Your task to perform on an android device: add a contact Image 0: 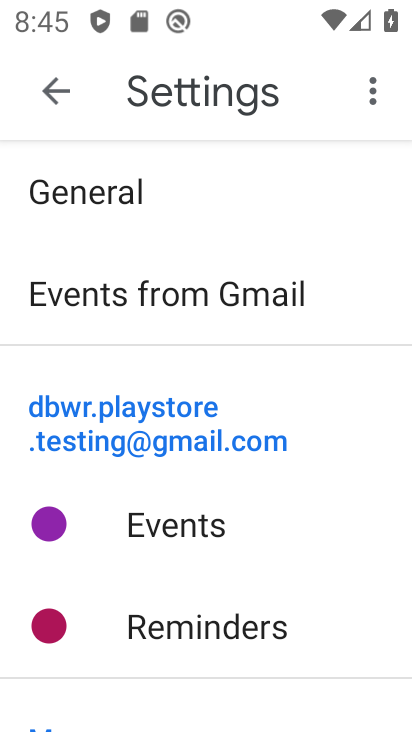
Step 0: press home button
Your task to perform on an android device: add a contact Image 1: 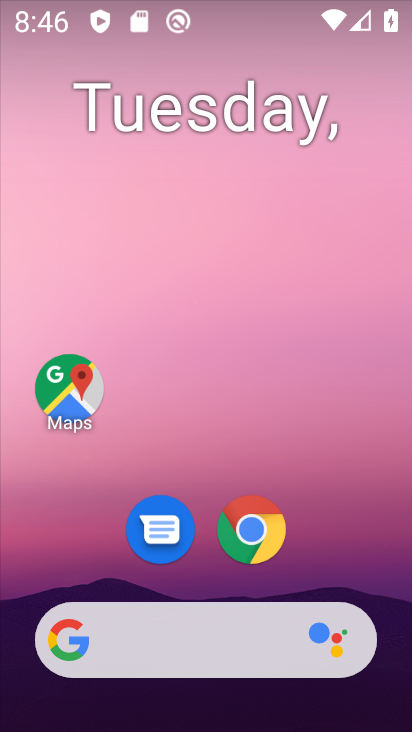
Step 1: drag from (391, 602) to (354, 206)
Your task to perform on an android device: add a contact Image 2: 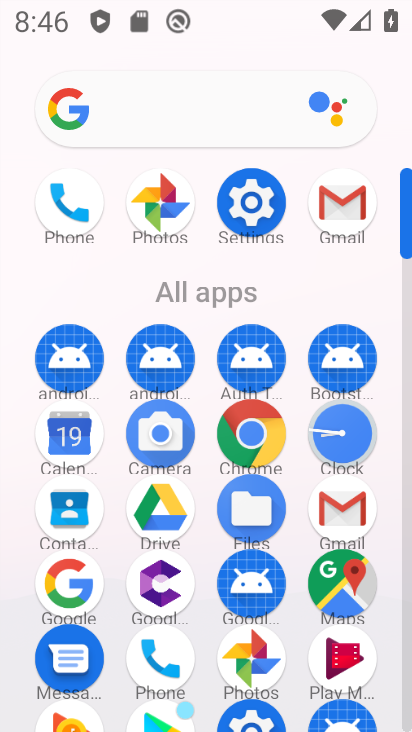
Step 2: click (405, 709)
Your task to perform on an android device: add a contact Image 3: 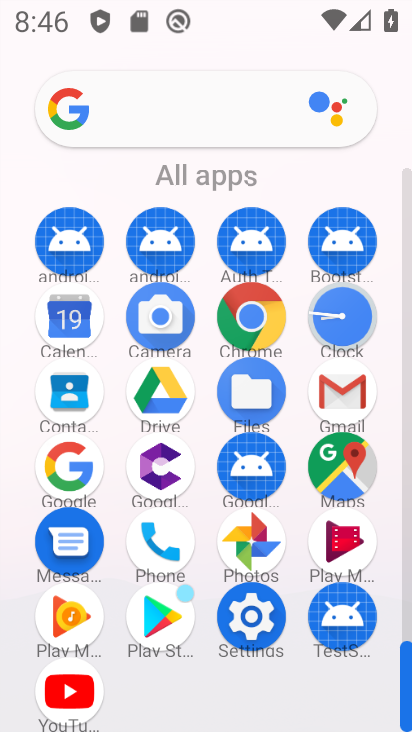
Step 3: click (65, 383)
Your task to perform on an android device: add a contact Image 4: 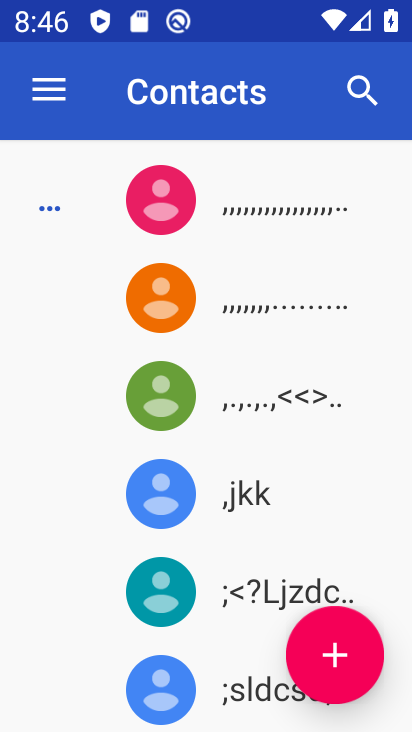
Step 4: click (332, 656)
Your task to perform on an android device: add a contact Image 5: 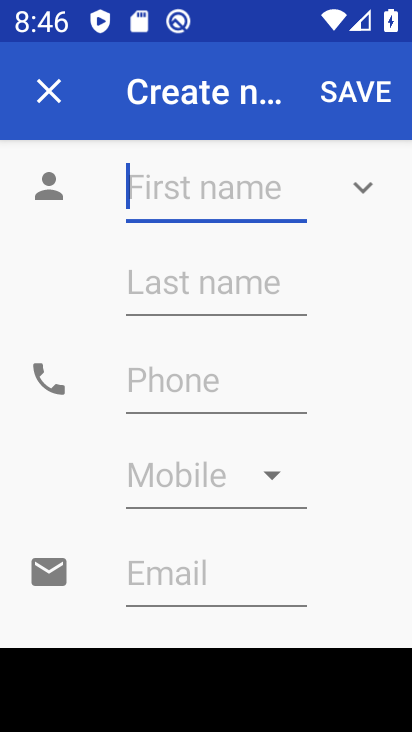
Step 5: type "fgddshh"
Your task to perform on an android device: add a contact Image 6: 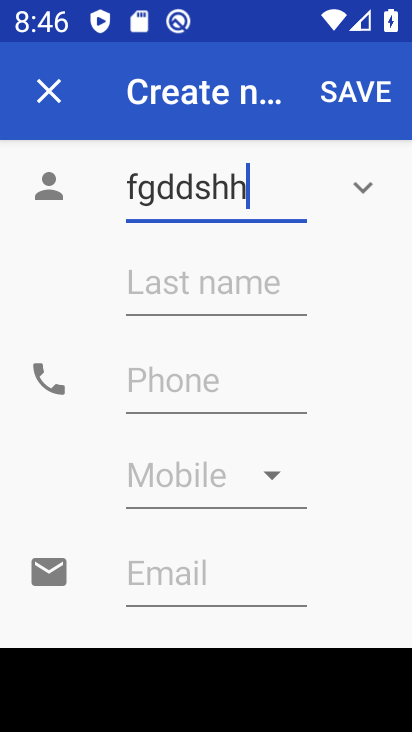
Step 6: click (152, 387)
Your task to perform on an android device: add a contact Image 7: 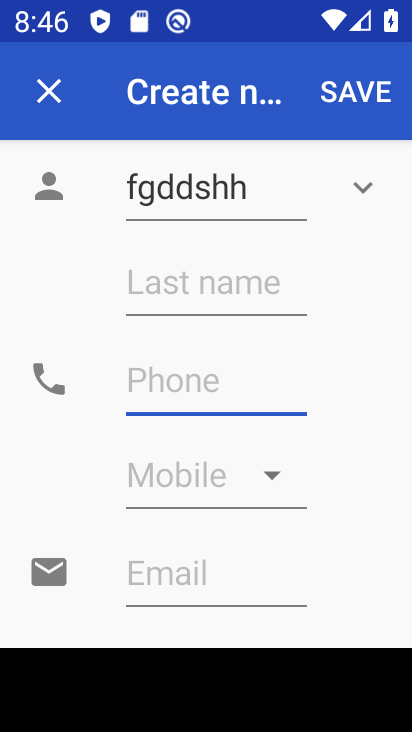
Step 7: type "0953323490"
Your task to perform on an android device: add a contact Image 8: 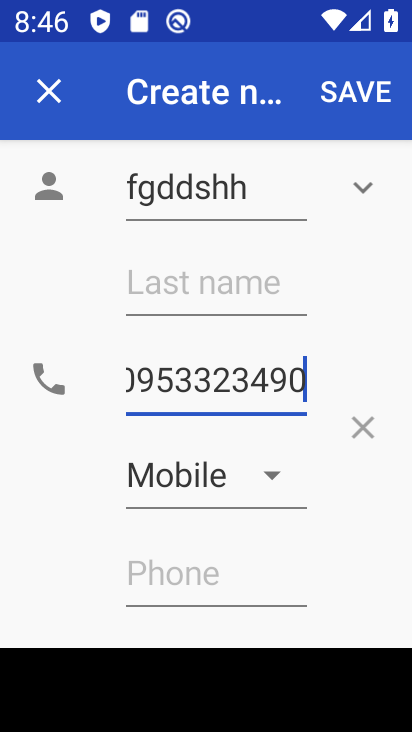
Step 8: click (278, 477)
Your task to perform on an android device: add a contact Image 9: 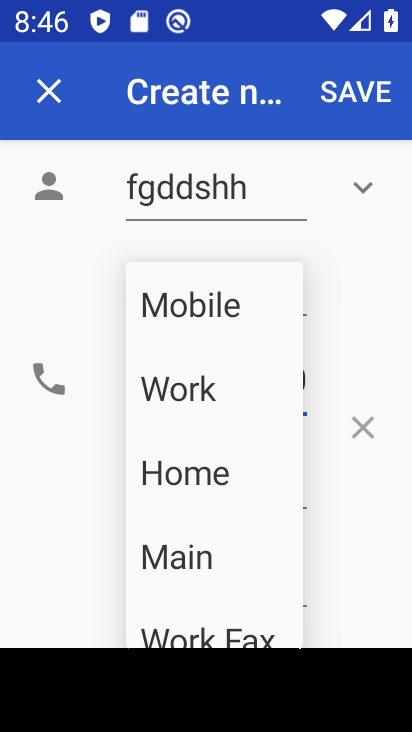
Step 9: click (199, 399)
Your task to perform on an android device: add a contact Image 10: 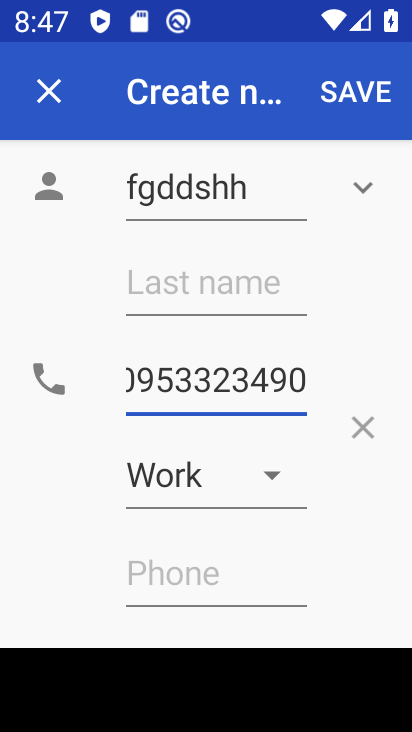
Step 10: click (350, 92)
Your task to perform on an android device: add a contact Image 11: 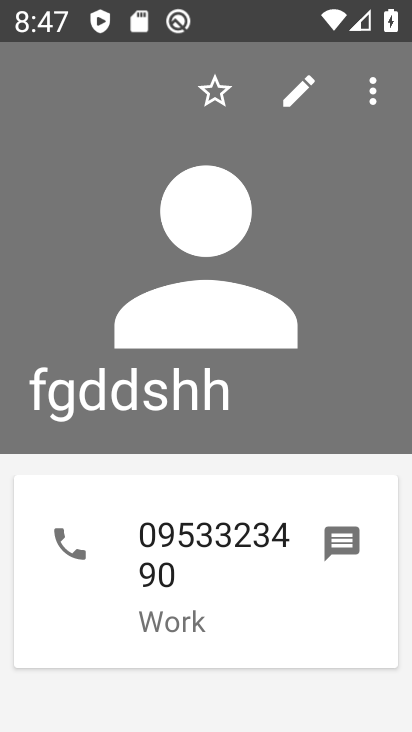
Step 11: task complete